Your task to perform on an android device: Open calendar and show me the third week of next month Image 0: 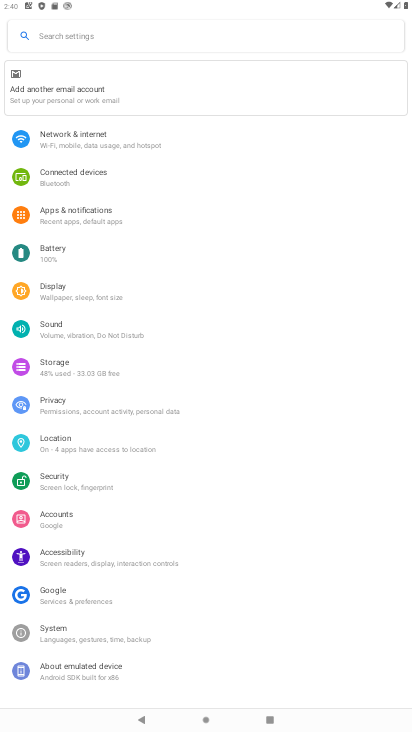
Step 0: press home button
Your task to perform on an android device: Open calendar and show me the third week of next month Image 1: 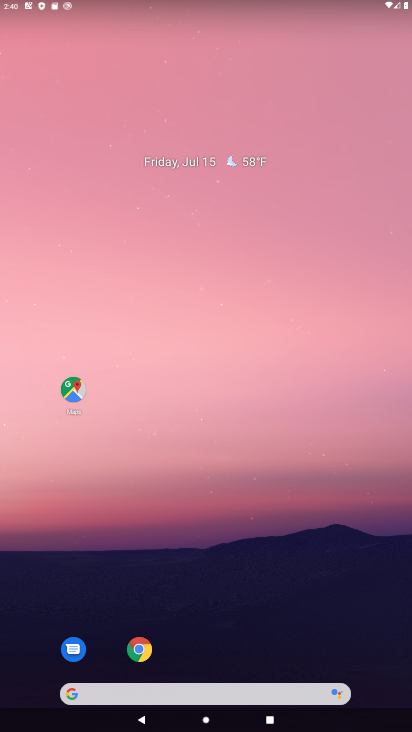
Step 1: drag from (228, 699) to (178, 137)
Your task to perform on an android device: Open calendar and show me the third week of next month Image 2: 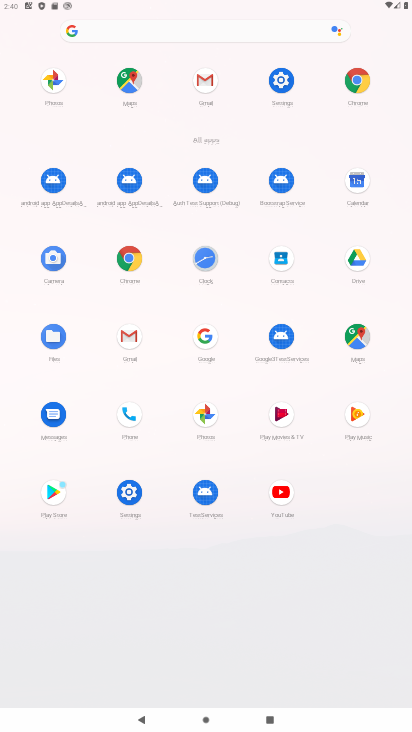
Step 2: click (358, 186)
Your task to perform on an android device: Open calendar and show me the third week of next month Image 3: 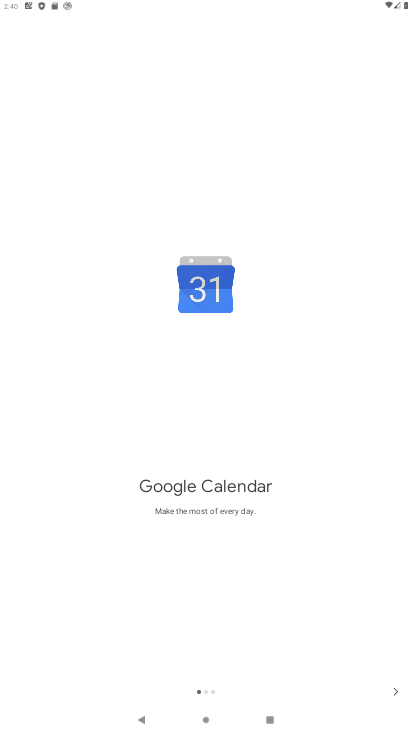
Step 3: click (398, 689)
Your task to perform on an android device: Open calendar and show me the third week of next month Image 4: 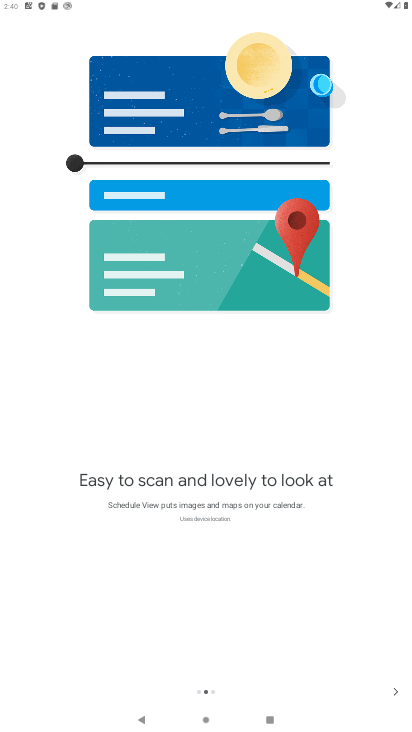
Step 4: click (398, 689)
Your task to perform on an android device: Open calendar and show me the third week of next month Image 5: 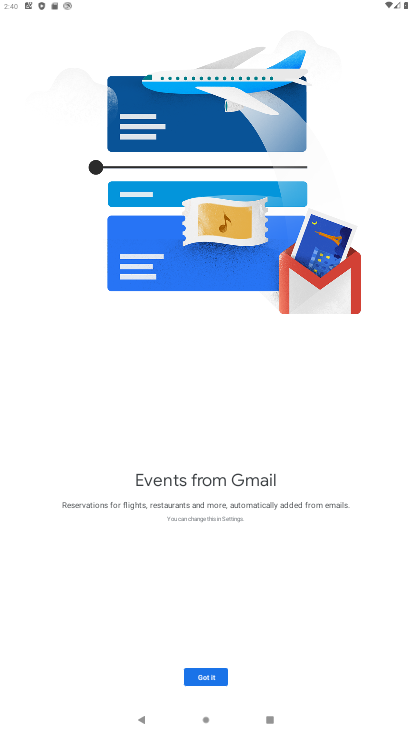
Step 5: click (218, 681)
Your task to perform on an android device: Open calendar and show me the third week of next month Image 6: 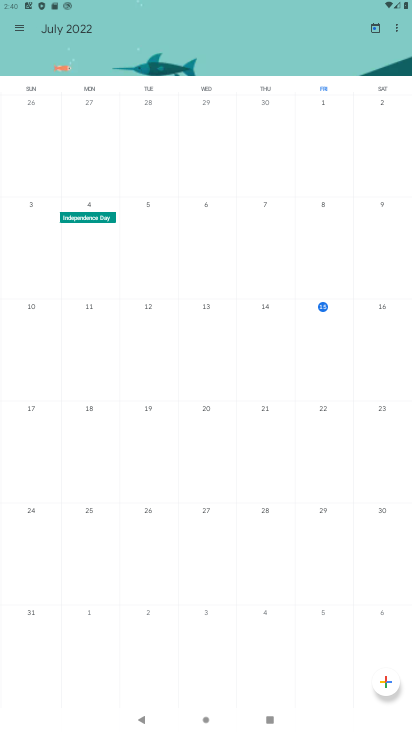
Step 6: drag from (344, 282) to (23, 250)
Your task to perform on an android device: Open calendar and show me the third week of next month Image 7: 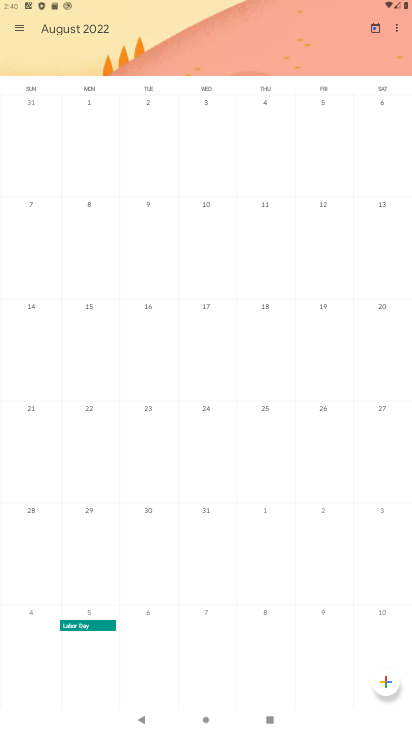
Step 7: click (89, 305)
Your task to perform on an android device: Open calendar and show me the third week of next month Image 8: 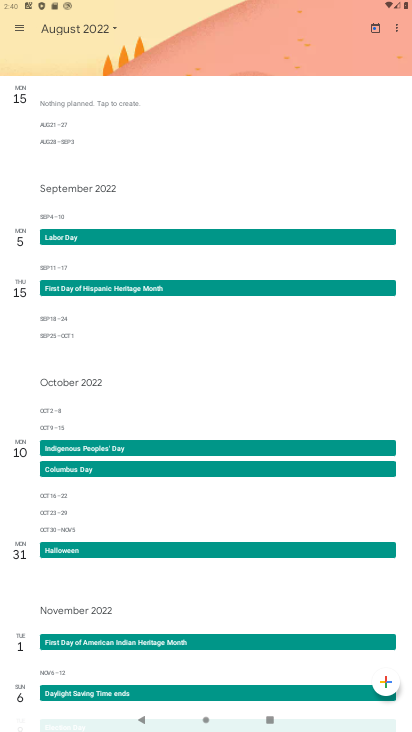
Step 8: click (21, 28)
Your task to perform on an android device: Open calendar and show me the third week of next month Image 9: 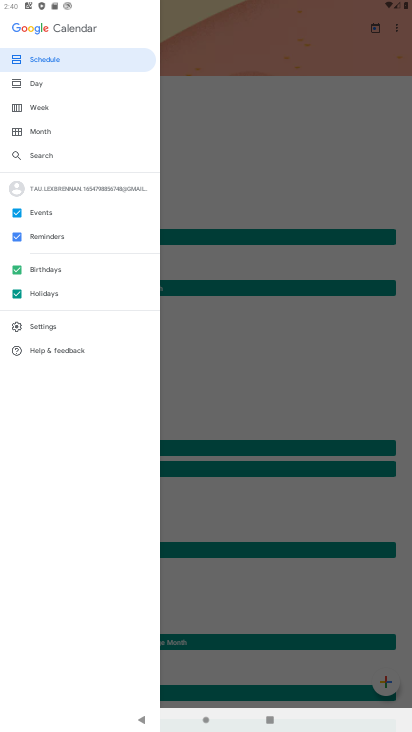
Step 9: click (46, 104)
Your task to perform on an android device: Open calendar and show me the third week of next month Image 10: 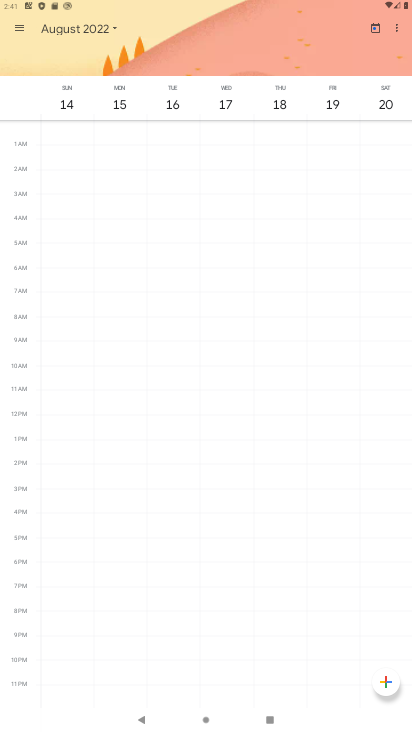
Step 10: task complete